Your task to perform on an android device: Open Chrome and go to settings Image 0: 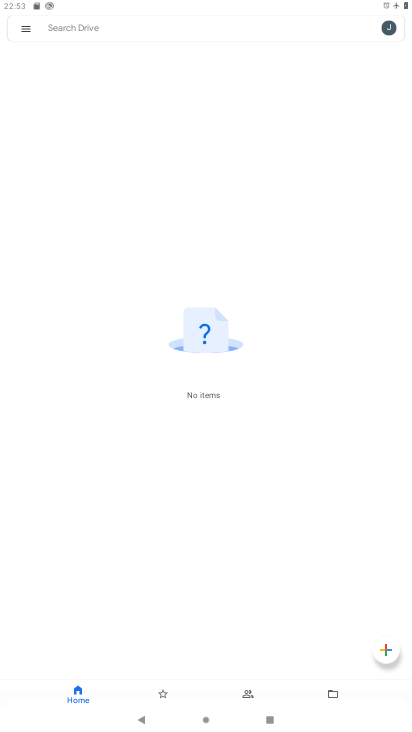
Step 0: press home button
Your task to perform on an android device: Open Chrome and go to settings Image 1: 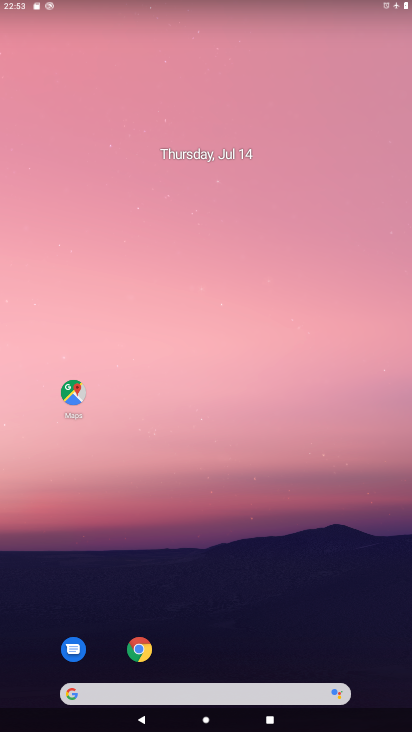
Step 1: click (132, 647)
Your task to perform on an android device: Open Chrome and go to settings Image 2: 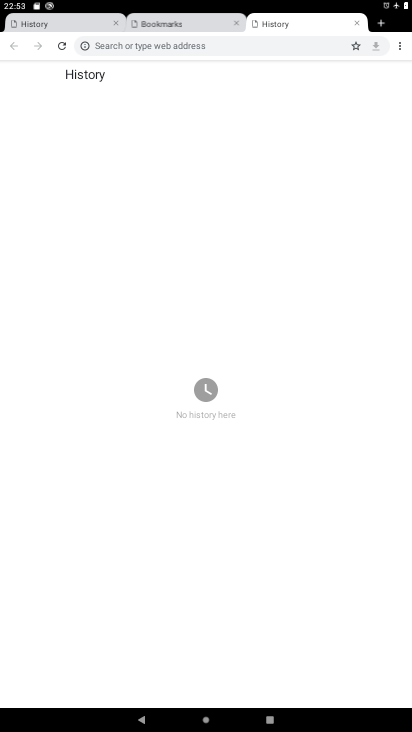
Step 2: click (398, 42)
Your task to perform on an android device: Open Chrome and go to settings Image 3: 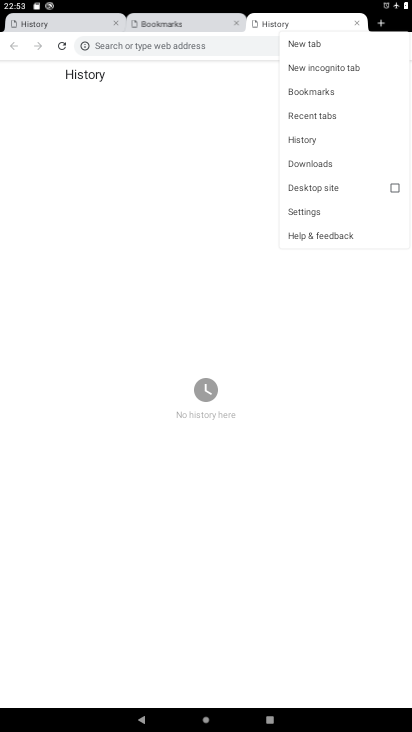
Step 3: click (319, 213)
Your task to perform on an android device: Open Chrome and go to settings Image 4: 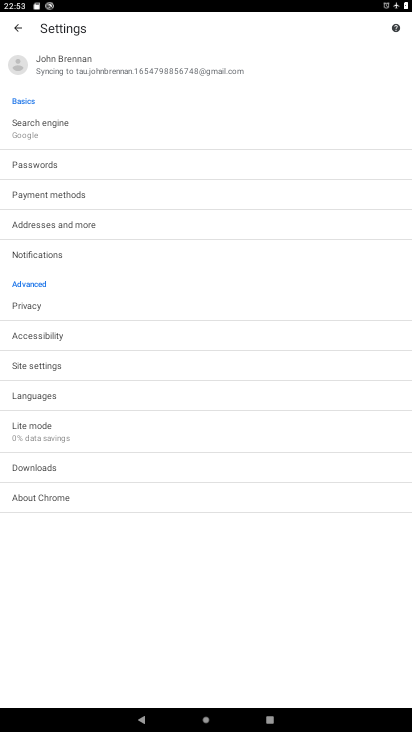
Step 4: task complete